Your task to perform on an android device: Open the calendar and show me this week's events? Image 0: 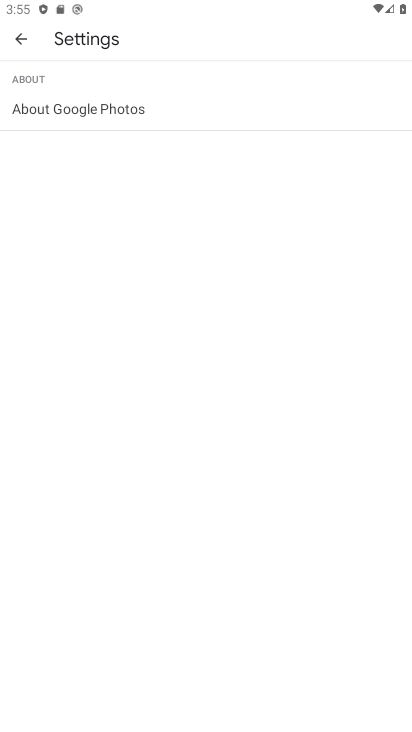
Step 0: press home button
Your task to perform on an android device: Open the calendar and show me this week's events? Image 1: 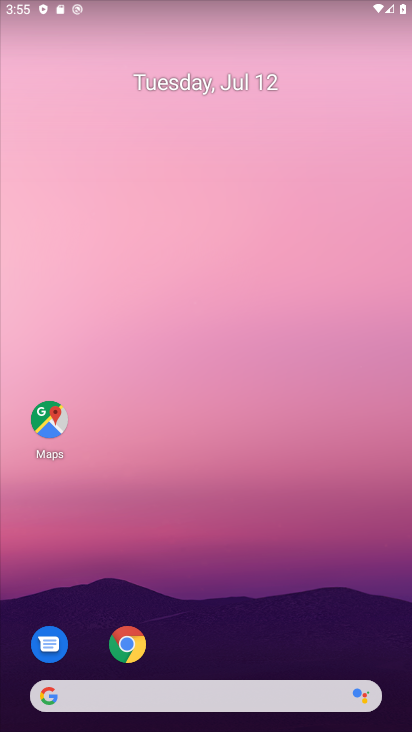
Step 1: drag from (200, 694) to (210, 122)
Your task to perform on an android device: Open the calendar and show me this week's events? Image 2: 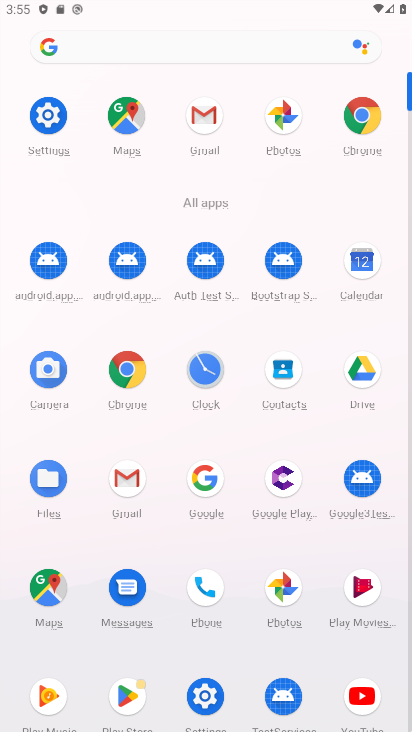
Step 2: click (358, 259)
Your task to perform on an android device: Open the calendar and show me this week's events? Image 3: 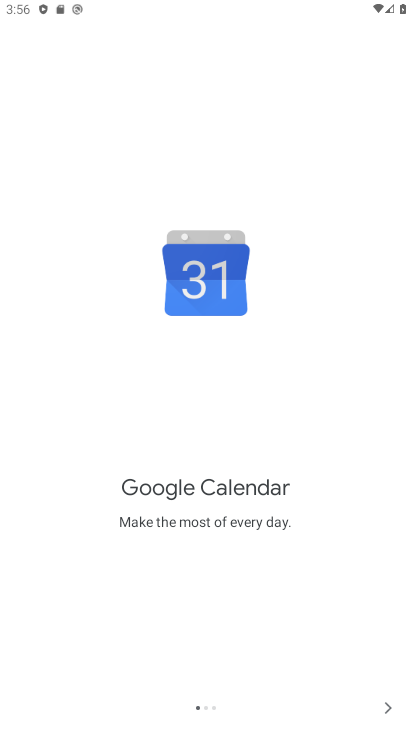
Step 3: click (379, 706)
Your task to perform on an android device: Open the calendar and show me this week's events? Image 4: 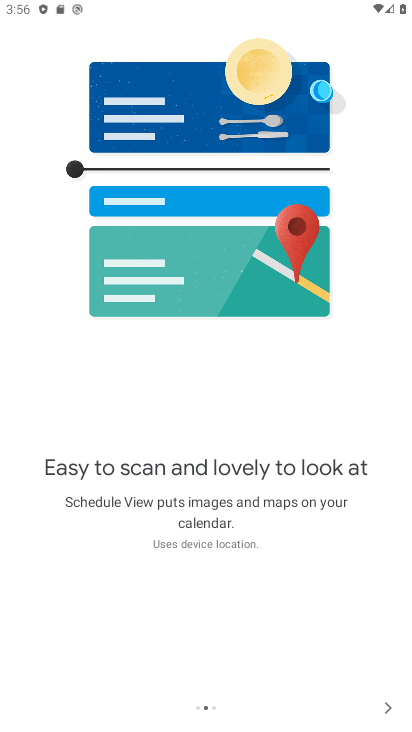
Step 4: click (379, 706)
Your task to perform on an android device: Open the calendar and show me this week's events? Image 5: 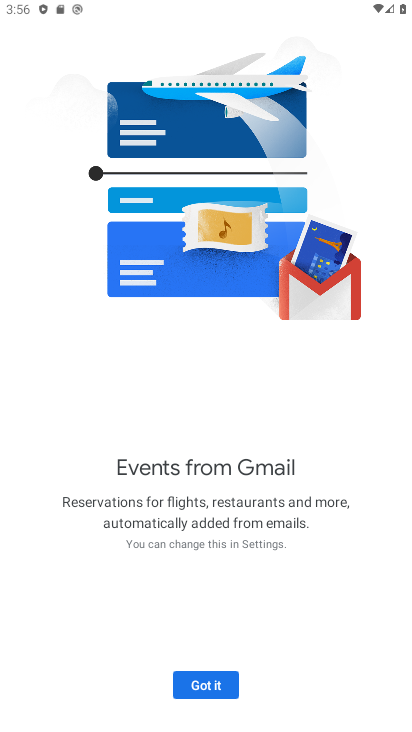
Step 5: click (206, 689)
Your task to perform on an android device: Open the calendar and show me this week's events? Image 6: 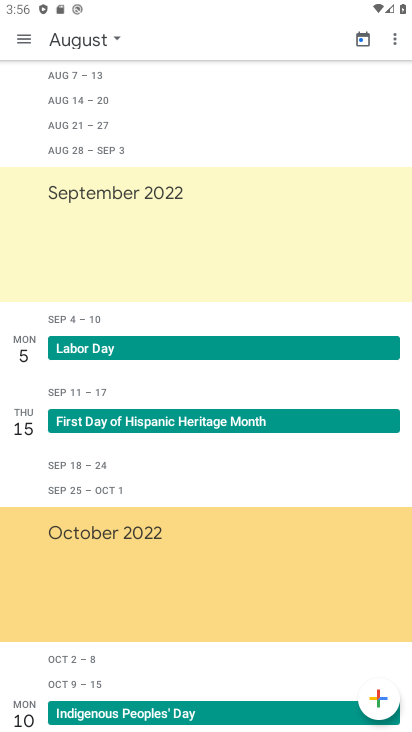
Step 6: click (31, 38)
Your task to perform on an android device: Open the calendar and show me this week's events? Image 7: 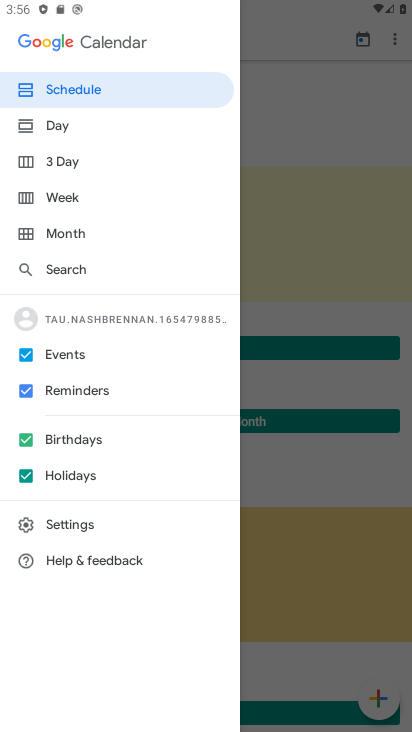
Step 7: click (68, 194)
Your task to perform on an android device: Open the calendar and show me this week's events? Image 8: 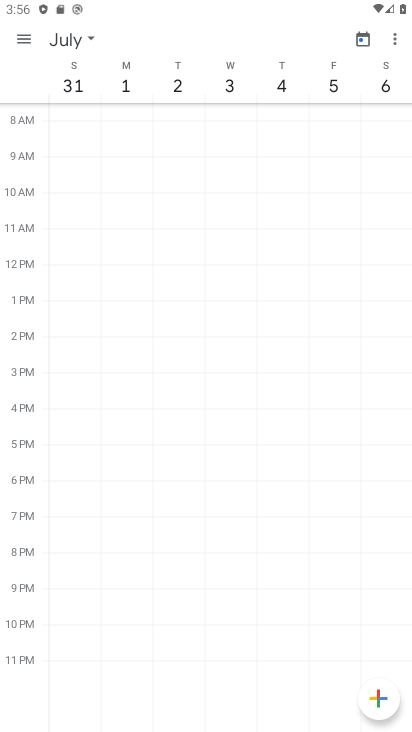
Step 8: task complete